Your task to perform on an android device: see creations saved in the google photos Image 0: 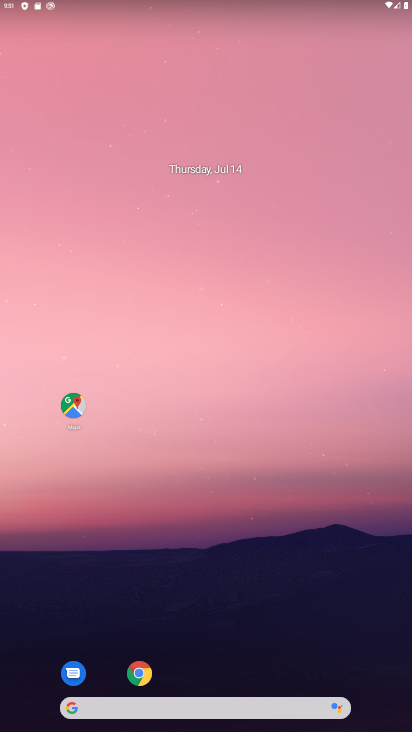
Step 0: drag from (205, 580) to (193, 71)
Your task to perform on an android device: see creations saved in the google photos Image 1: 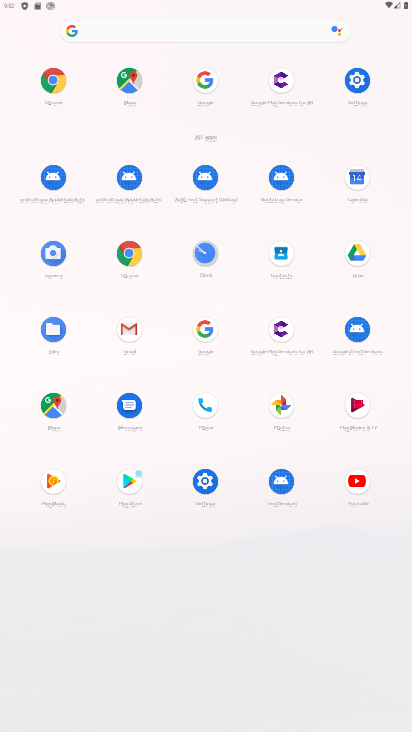
Step 1: click (280, 396)
Your task to perform on an android device: see creations saved in the google photos Image 2: 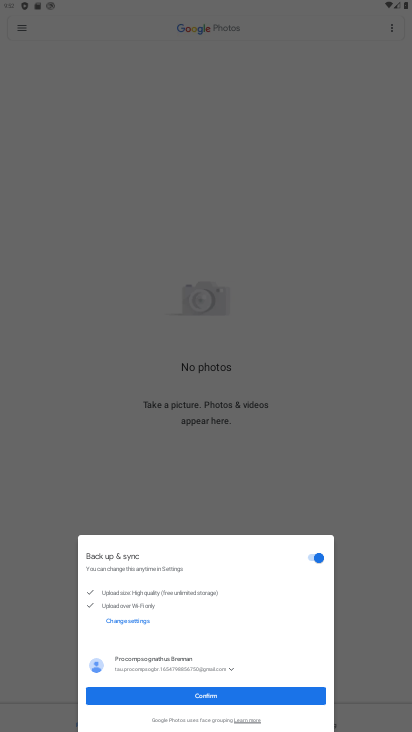
Step 2: click (242, 703)
Your task to perform on an android device: see creations saved in the google photos Image 3: 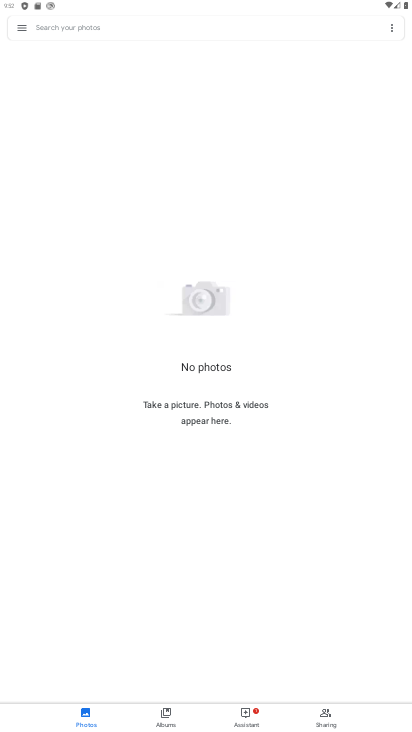
Step 3: click (51, 28)
Your task to perform on an android device: see creations saved in the google photos Image 4: 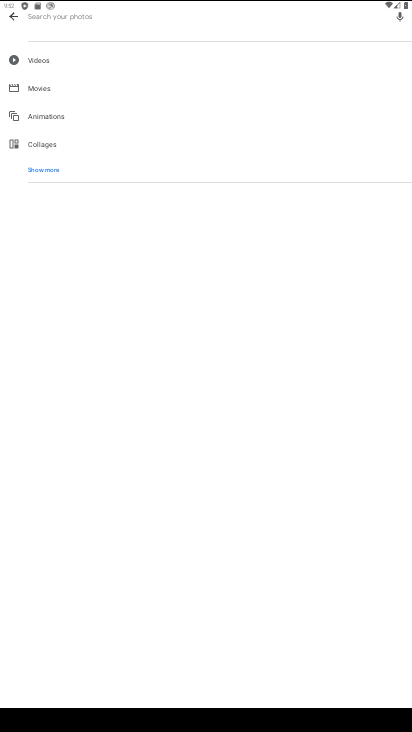
Step 4: click (39, 162)
Your task to perform on an android device: see creations saved in the google photos Image 5: 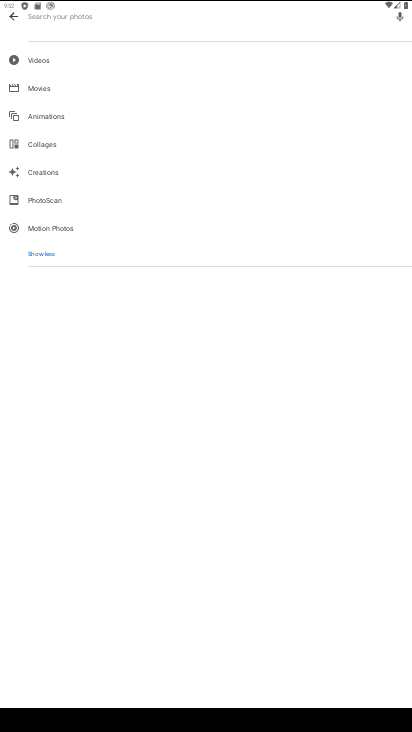
Step 5: click (49, 171)
Your task to perform on an android device: see creations saved in the google photos Image 6: 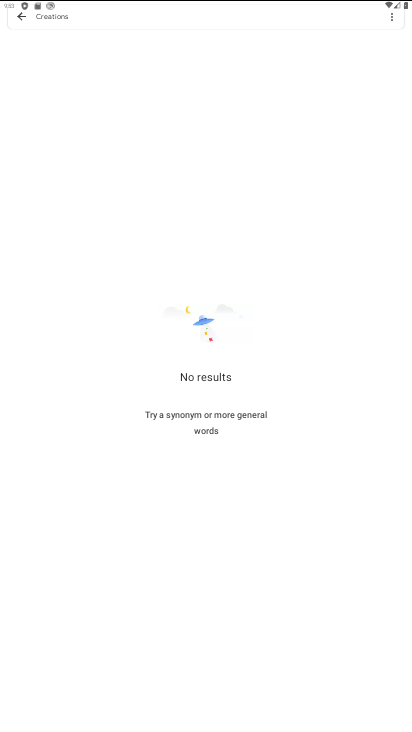
Step 6: task complete